Your task to perform on an android device: Go to wifi settings Image 0: 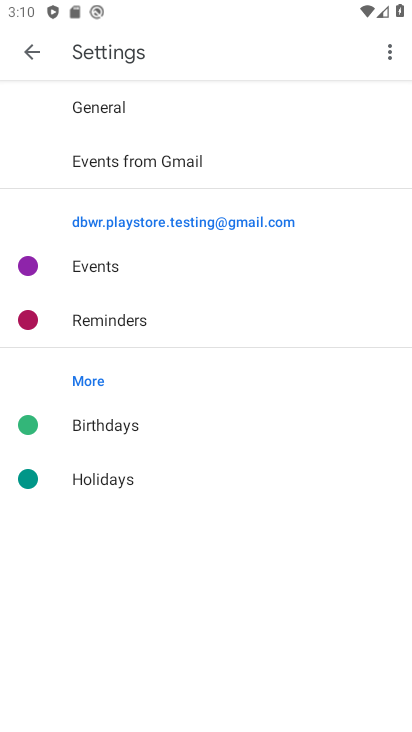
Step 0: click (28, 45)
Your task to perform on an android device: Go to wifi settings Image 1: 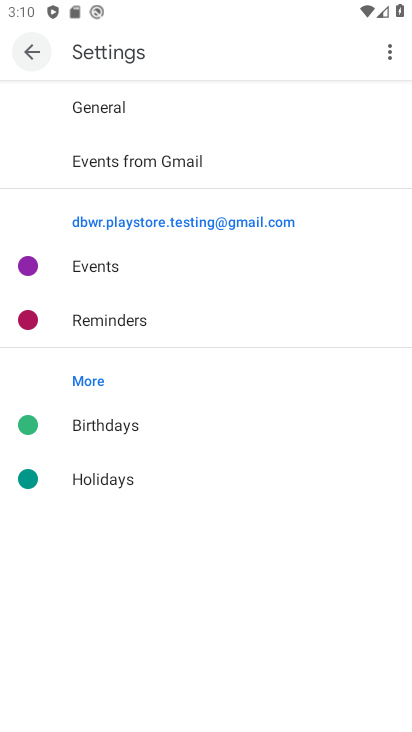
Step 1: click (28, 48)
Your task to perform on an android device: Go to wifi settings Image 2: 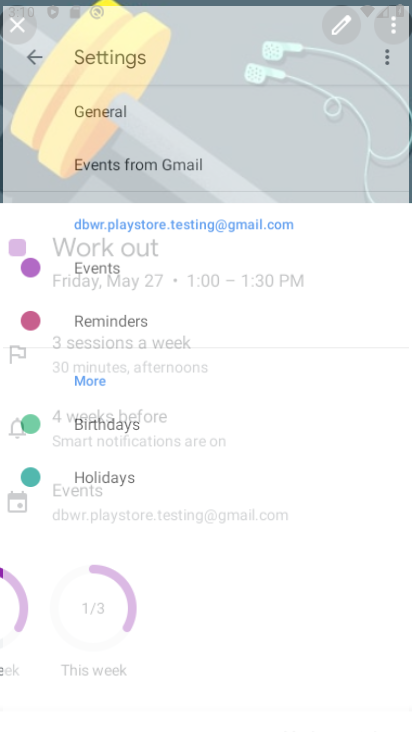
Step 2: click (32, 53)
Your task to perform on an android device: Go to wifi settings Image 3: 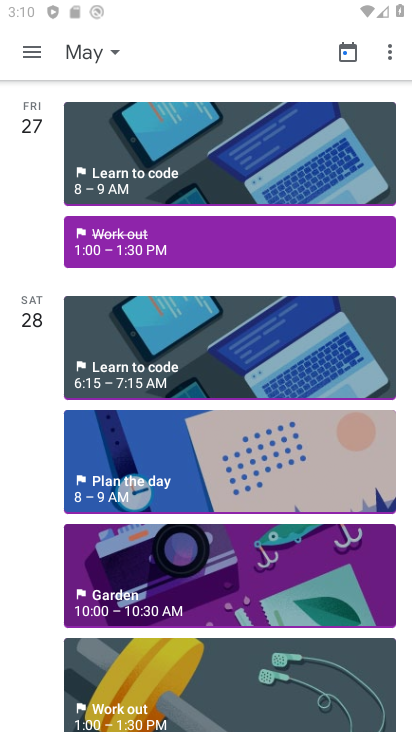
Step 3: click (33, 53)
Your task to perform on an android device: Go to wifi settings Image 4: 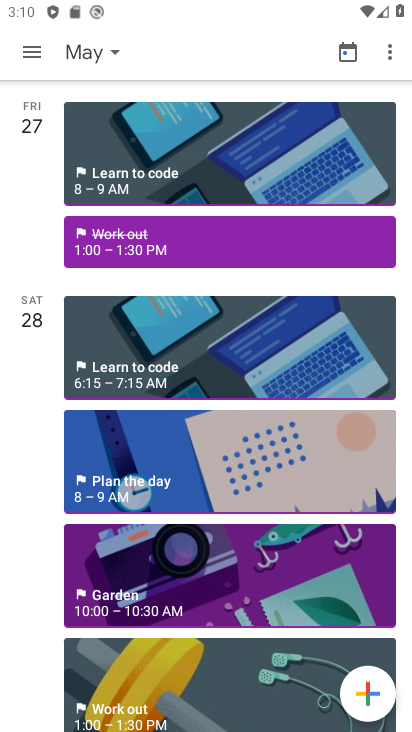
Step 4: click (29, 48)
Your task to perform on an android device: Go to wifi settings Image 5: 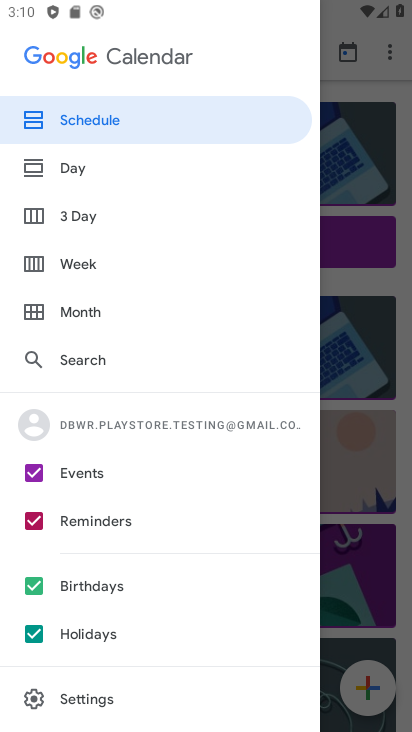
Step 5: press back button
Your task to perform on an android device: Go to wifi settings Image 6: 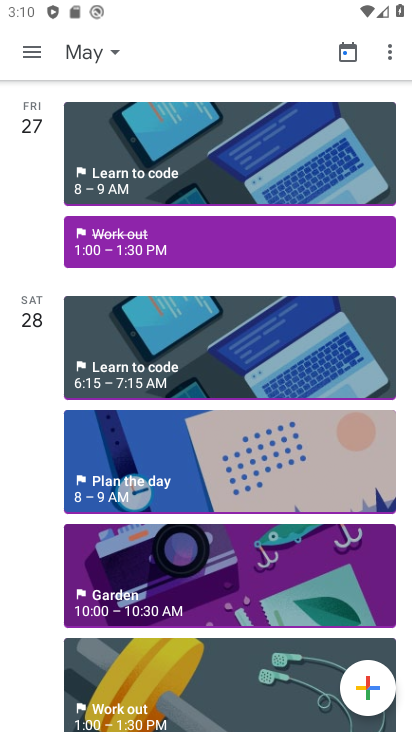
Step 6: press back button
Your task to perform on an android device: Go to wifi settings Image 7: 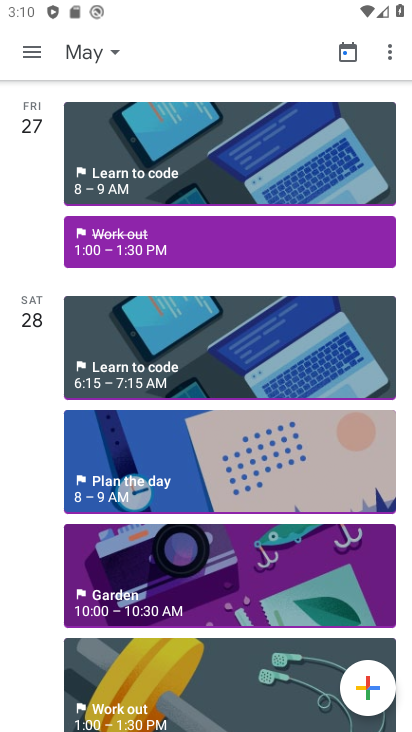
Step 7: press home button
Your task to perform on an android device: Go to wifi settings Image 8: 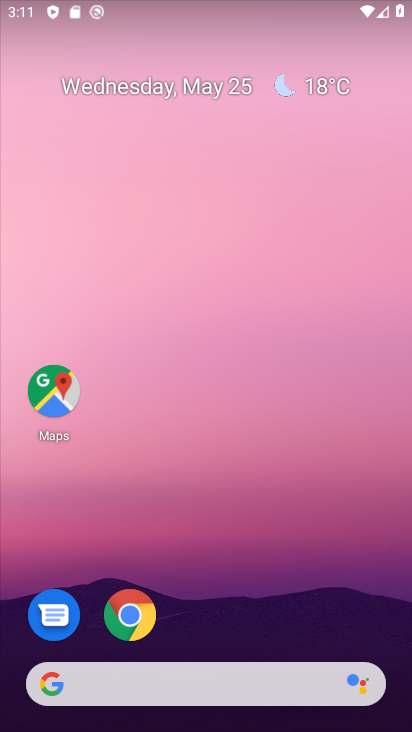
Step 8: drag from (267, 511) to (304, 115)
Your task to perform on an android device: Go to wifi settings Image 9: 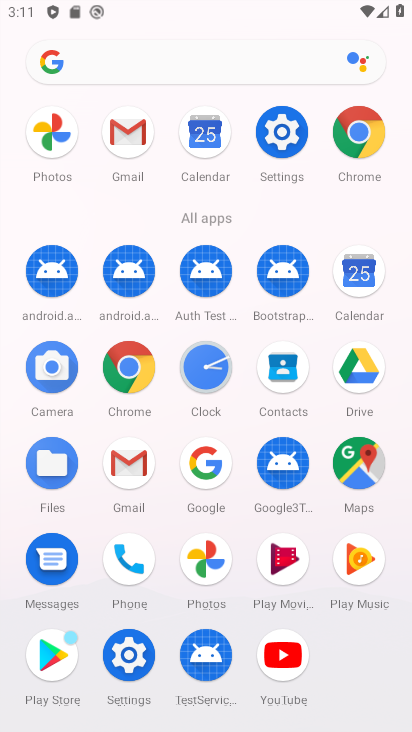
Step 9: click (279, 131)
Your task to perform on an android device: Go to wifi settings Image 10: 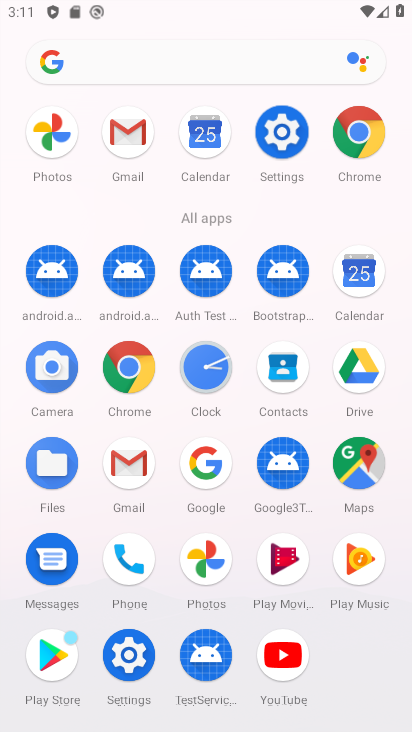
Step 10: click (280, 132)
Your task to perform on an android device: Go to wifi settings Image 11: 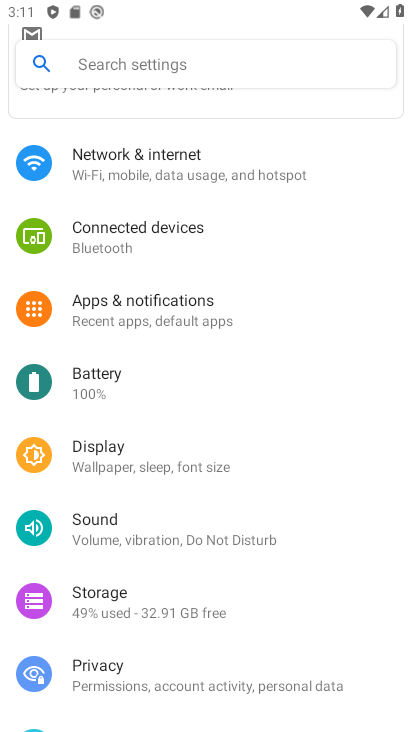
Step 11: task complete